Your task to perform on an android device: Open Android settings Image 0: 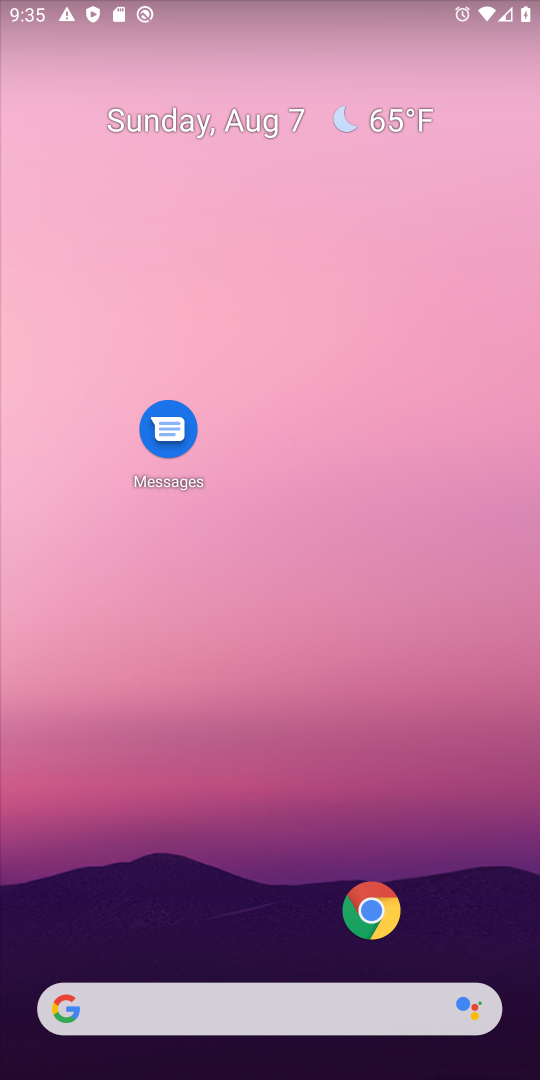
Step 0: drag from (134, 984) to (179, 375)
Your task to perform on an android device: Open Android settings Image 1: 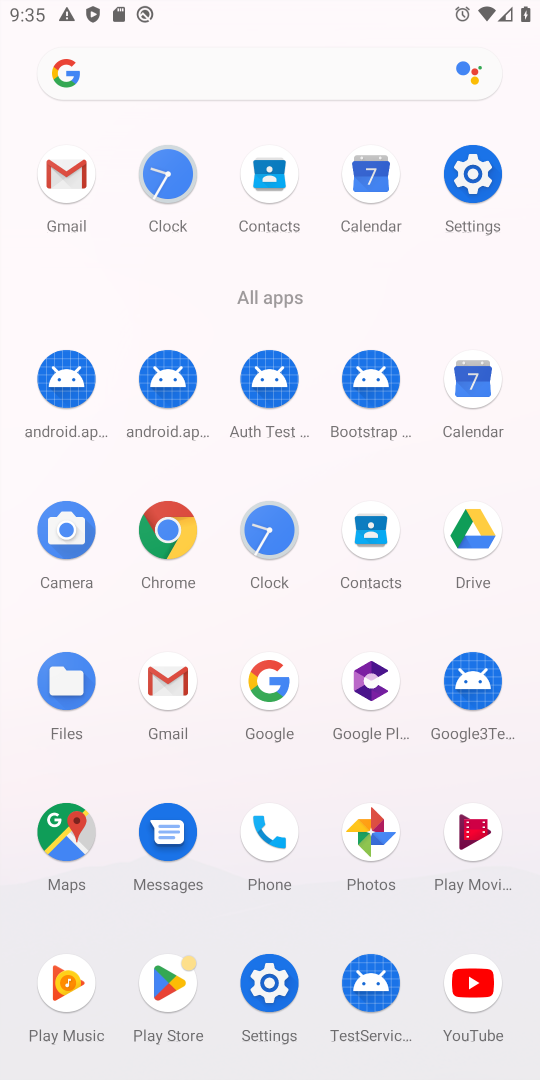
Step 1: click (241, 980)
Your task to perform on an android device: Open Android settings Image 2: 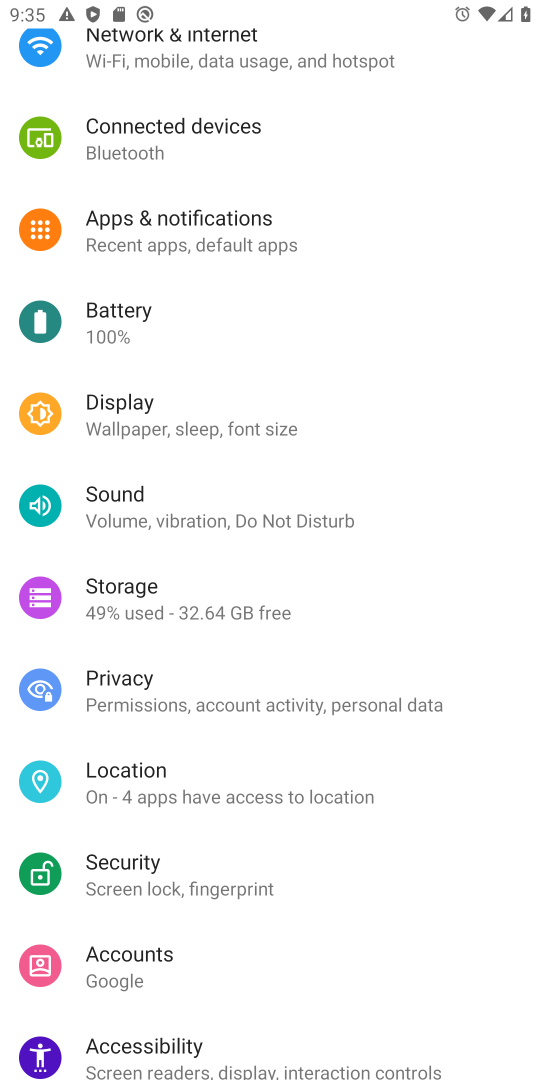
Step 2: task complete